Your task to perform on an android device: see creations saved in the google photos Image 0: 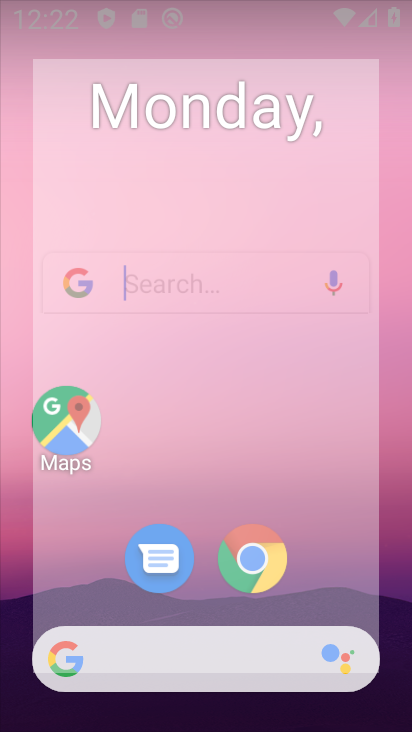
Step 0: drag from (395, 526) to (269, 52)
Your task to perform on an android device: see creations saved in the google photos Image 1: 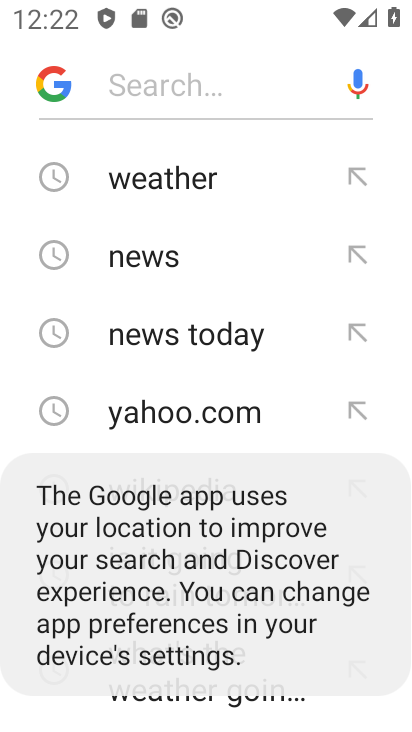
Step 1: press back button
Your task to perform on an android device: see creations saved in the google photos Image 2: 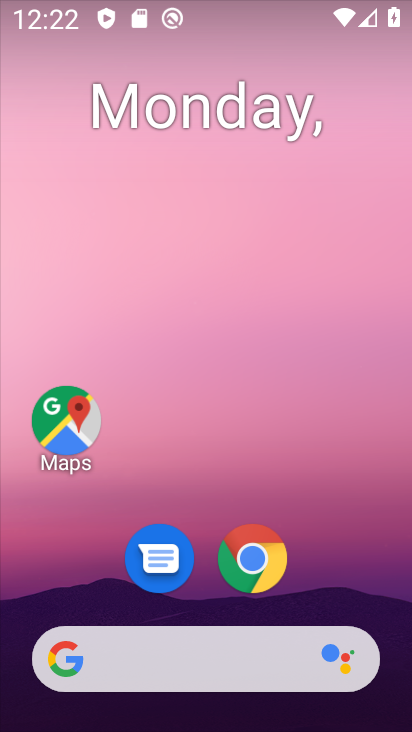
Step 2: drag from (356, 560) to (258, 99)
Your task to perform on an android device: see creations saved in the google photos Image 3: 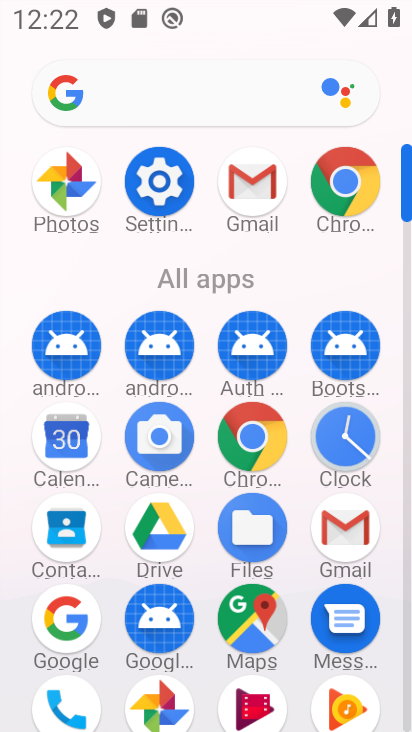
Step 3: drag from (21, 554) to (17, 287)
Your task to perform on an android device: see creations saved in the google photos Image 4: 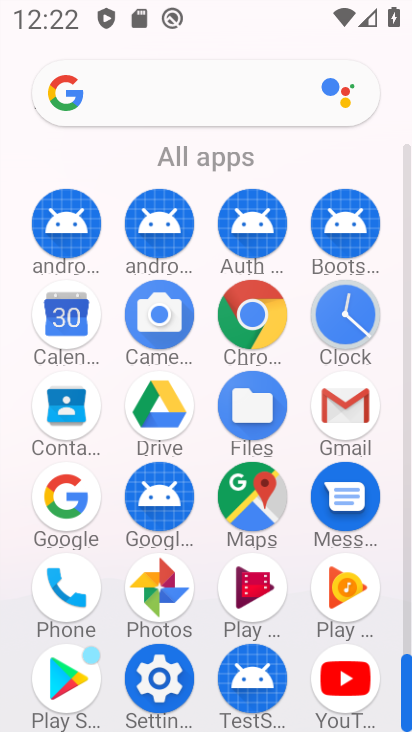
Step 4: click (166, 587)
Your task to perform on an android device: see creations saved in the google photos Image 5: 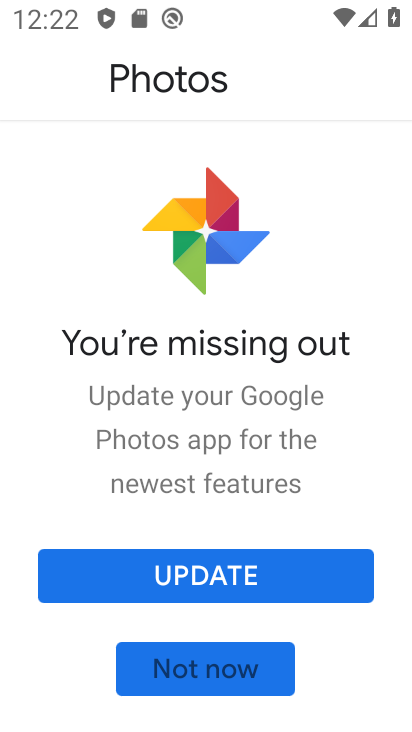
Step 5: click (207, 653)
Your task to perform on an android device: see creations saved in the google photos Image 6: 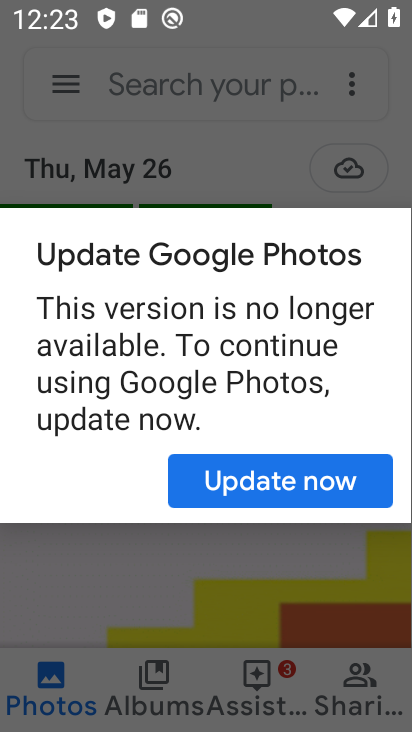
Step 6: click (306, 490)
Your task to perform on an android device: see creations saved in the google photos Image 7: 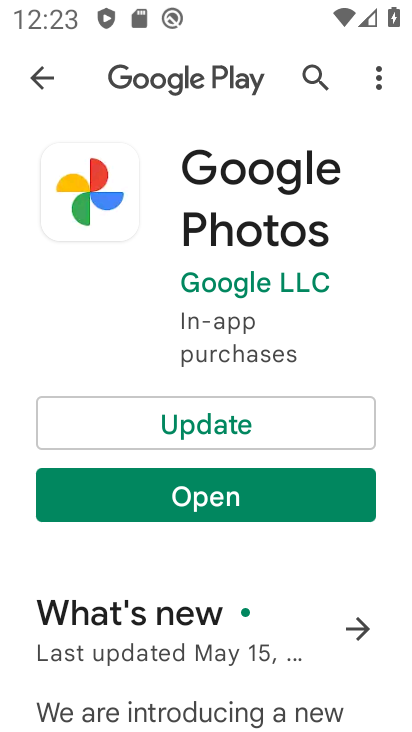
Step 7: click (261, 415)
Your task to perform on an android device: see creations saved in the google photos Image 8: 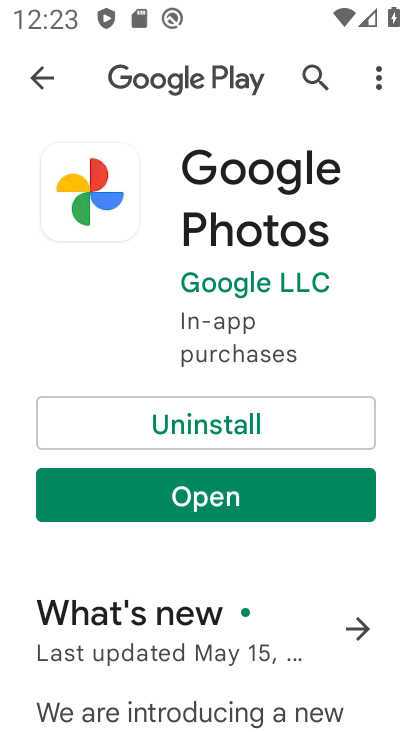
Step 8: click (227, 492)
Your task to perform on an android device: see creations saved in the google photos Image 9: 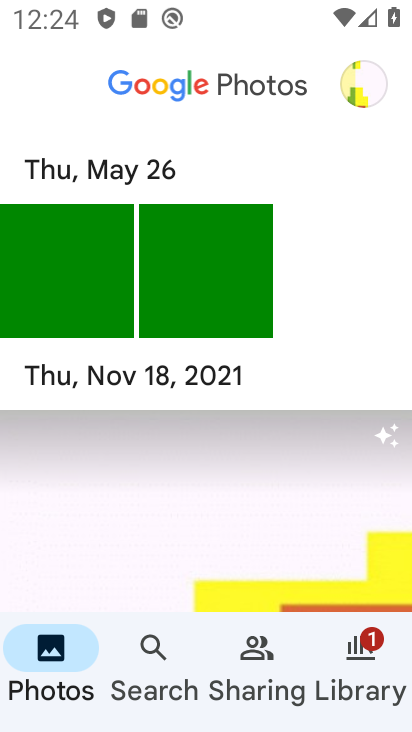
Step 9: task complete